Your task to perform on an android device: turn on translation in the chrome app Image 0: 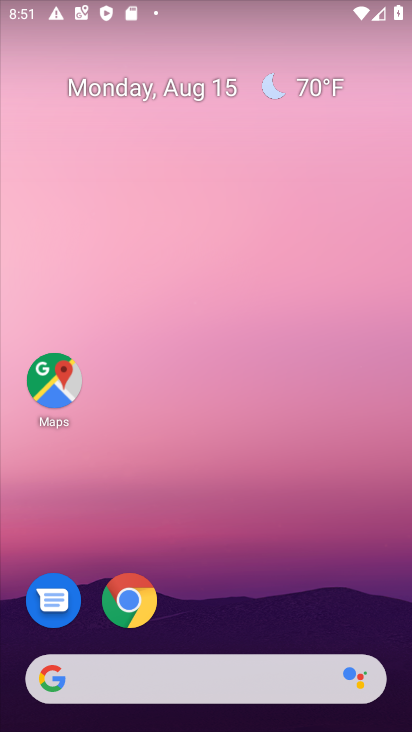
Step 0: click (126, 600)
Your task to perform on an android device: turn on translation in the chrome app Image 1: 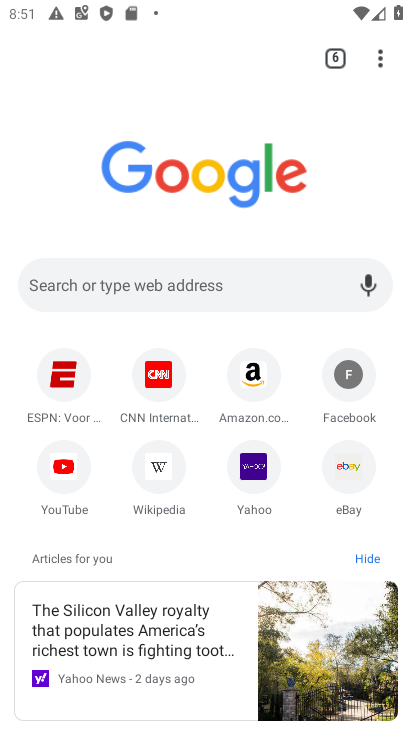
Step 1: click (379, 64)
Your task to perform on an android device: turn on translation in the chrome app Image 2: 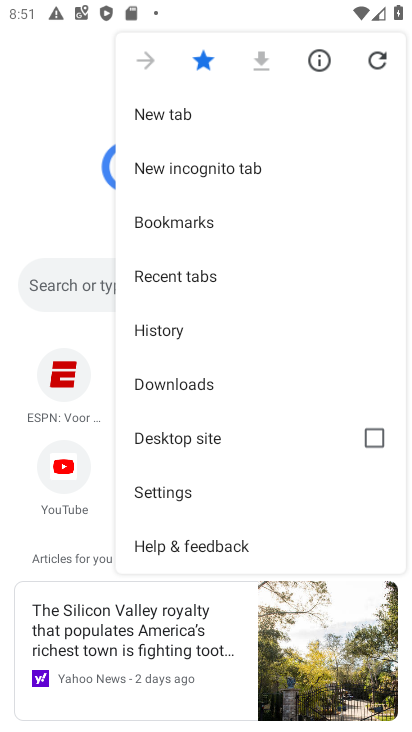
Step 2: click (171, 489)
Your task to perform on an android device: turn on translation in the chrome app Image 3: 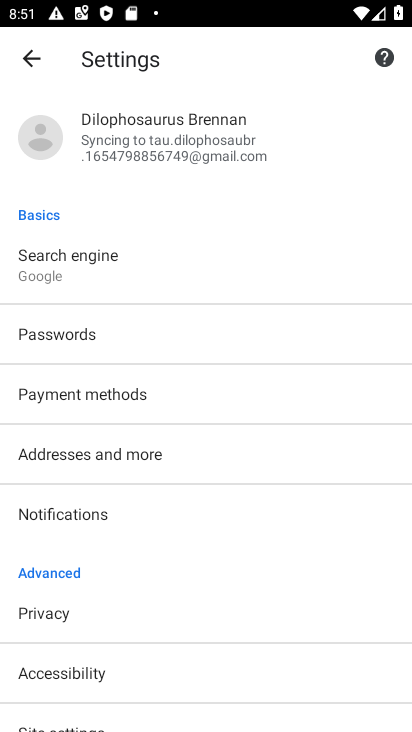
Step 3: drag from (151, 639) to (182, 372)
Your task to perform on an android device: turn on translation in the chrome app Image 4: 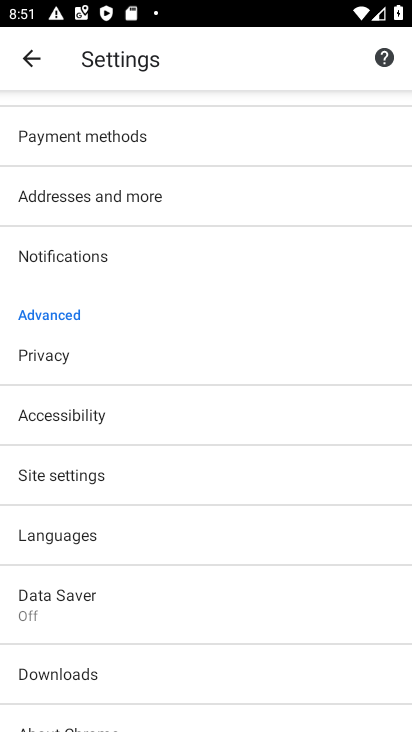
Step 4: click (90, 534)
Your task to perform on an android device: turn on translation in the chrome app Image 5: 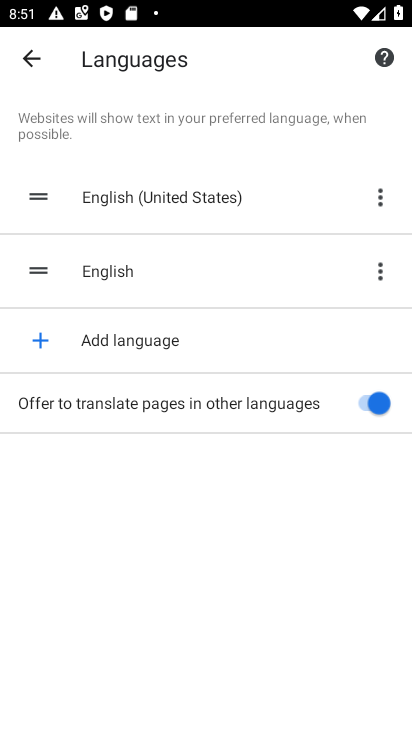
Step 5: task complete